Your task to perform on an android device: change your default location settings in chrome Image 0: 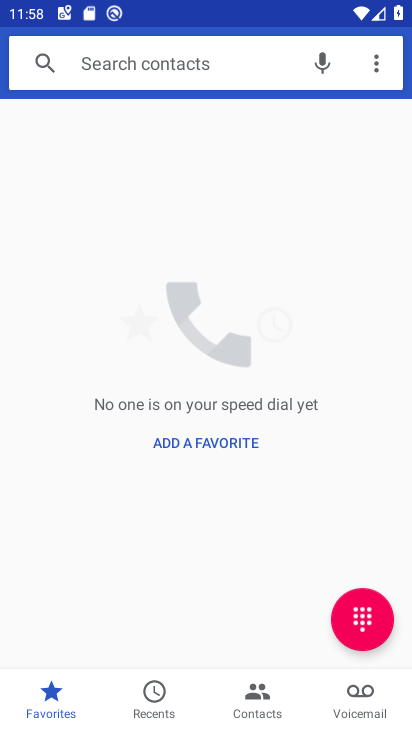
Step 0: press home button
Your task to perform on an android device: change your default location settings in chrome Image 1: 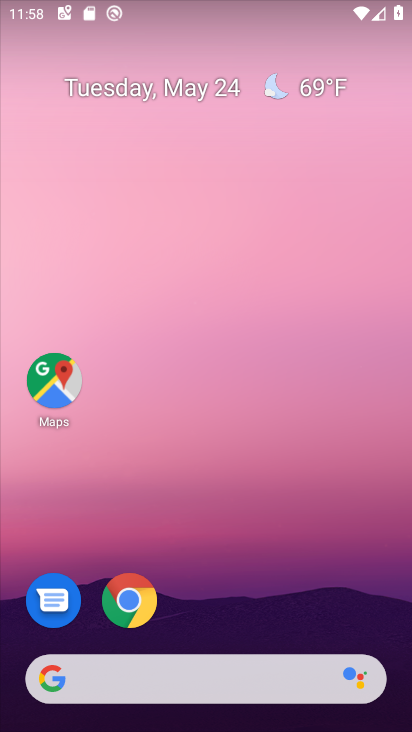
Step 1: drag from (386, 624) to (382, 338)
Your task to perform on an android device: change your default location settings in chrome Image 2: 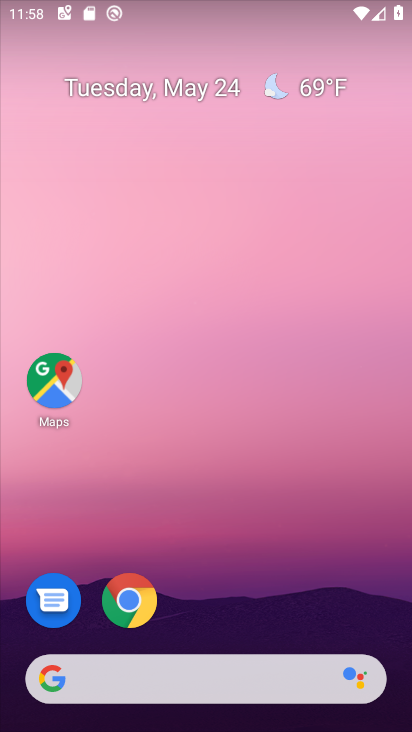
Step 2: drag from (367, 612) to (369, 220)
Your task to perform on an android device: change your default location settings in chrome Image 3: 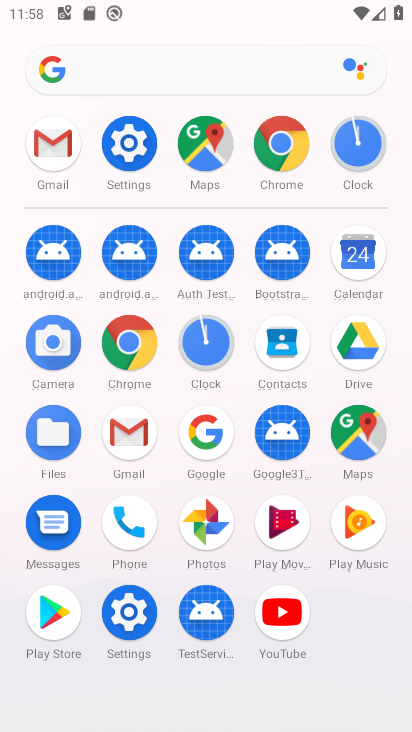
Step 3: click (142, 367)
Your task to perform on an android device: change your default location settings in chrome Image 4: 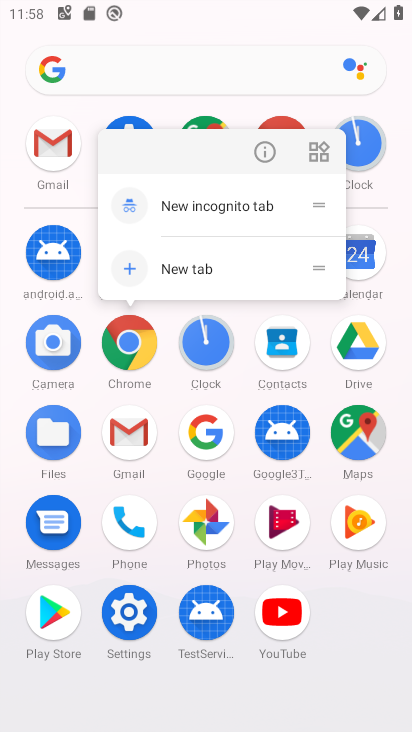
Step 4: click (142, 367)
Your task to perform on an android device: change your default location settings in chrome Image 5: 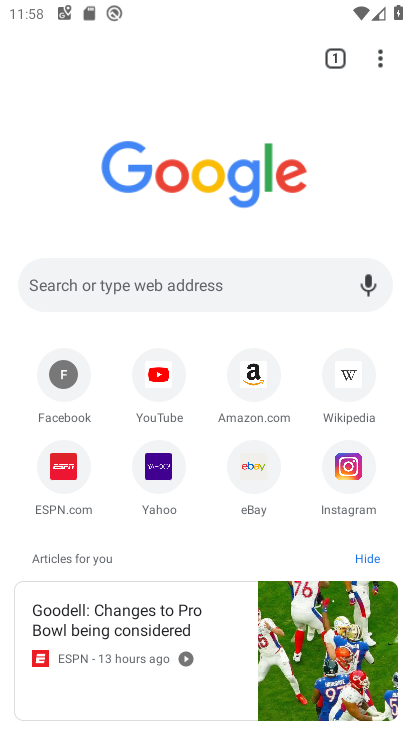
Step 5: click (380, 68)
Your task to perform on an android device: change your default location settings in chrome Image 6: 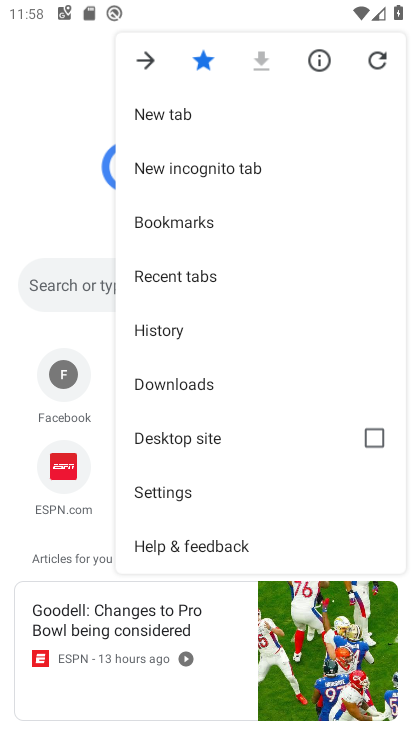
Step 6: click (189, 491)
Your task to perform on an android device: change your default location settings in chrome Image 7: 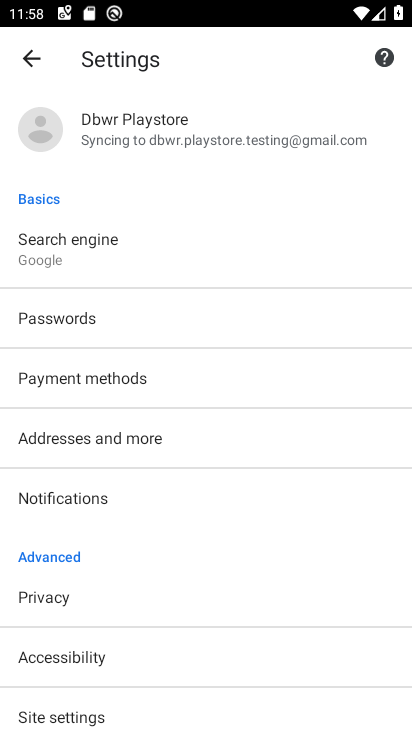
Step 7: drag from (260, 560) to (281, 457)
Your task to perform on an android device: change your default location settings in chrome Image 8: 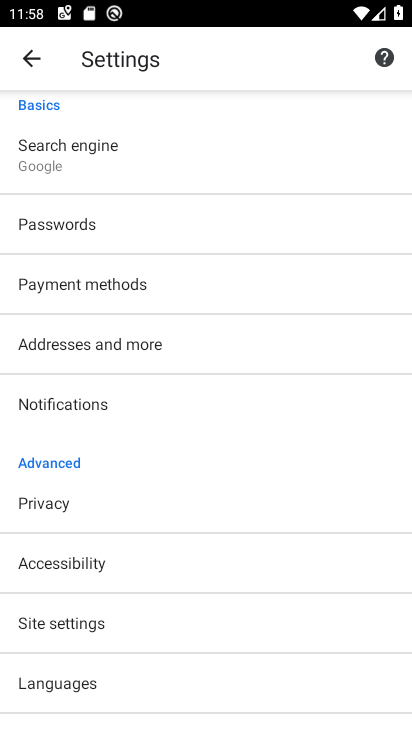
Step 8: drag from (321, 608) to (339, 506)
Your task to perform on an android device: change your default location settings in chrome Image 9: 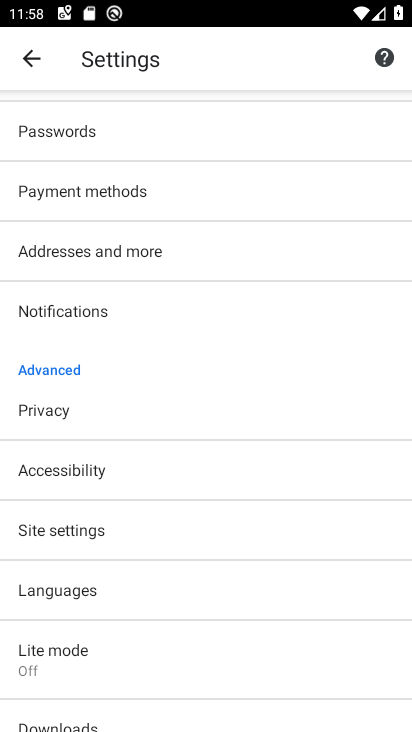
Step 9: drag from (316, 647) to (325, 538)
Your task to perform on an android device: change your default location settings in chrome Image 10: 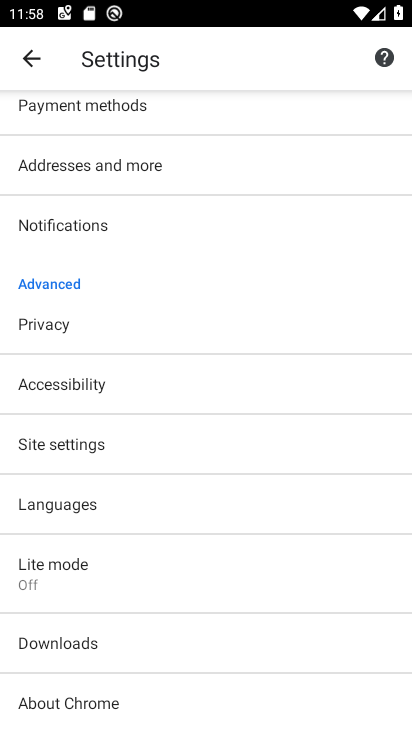
Step 10: drag from (307, 666) to (325, 580)
Your task to perform on an android device: change your default location settings in chrome Image 11: 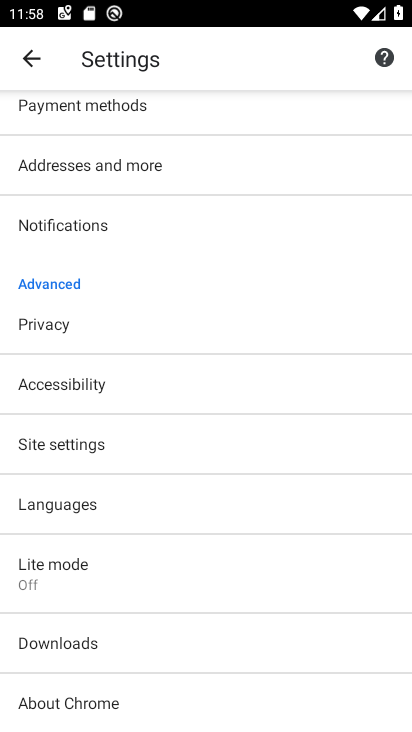
Step 11: drag from (293, 383) to (273, 554)
Your task to perform on an android device: change your default location settings in chrome Image 12: 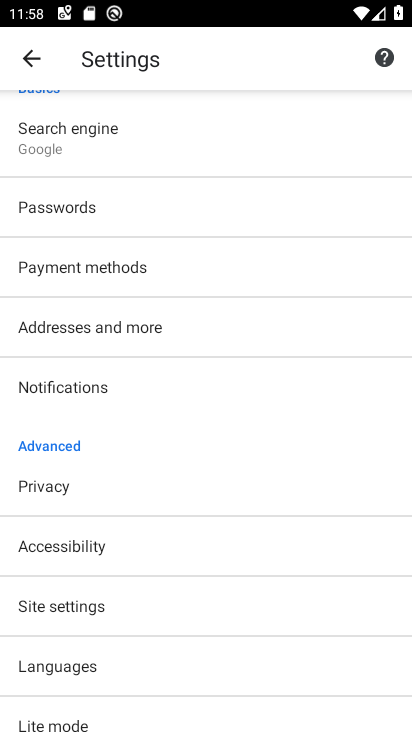
Step 12: click (262, 614)
Your task to perform on an android device: change your default location settings in chrome Image 13: 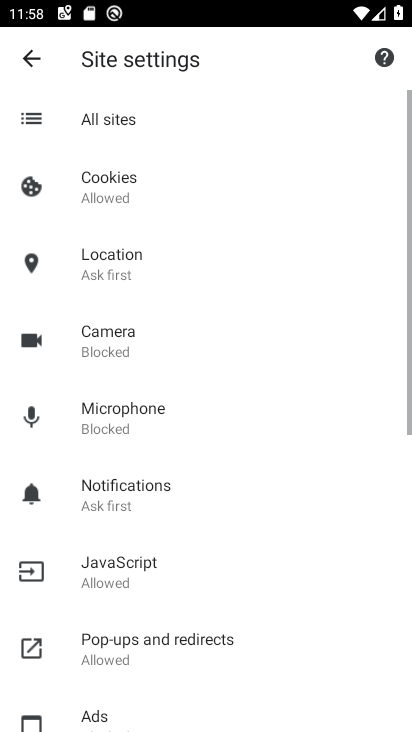
Step 13: drag from (262, 614) to (261, 527)
Your task to perform on an android device: change your default location settings in chrome Image 14: 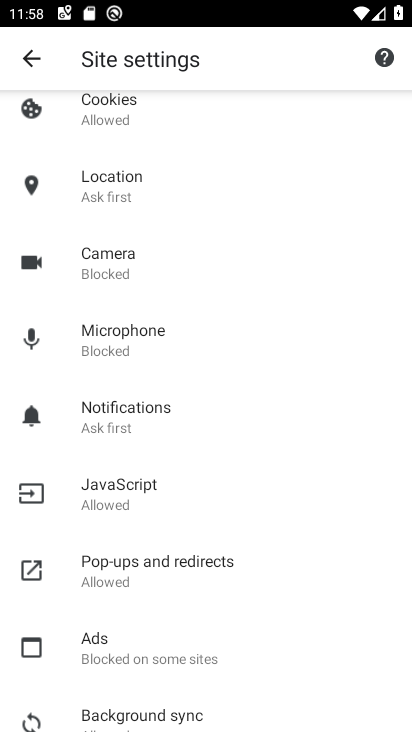
Step 14: drag from (321, 649) to (337, 465)
Your task to perform on an android device: change your default location settings in chrome Image 15: 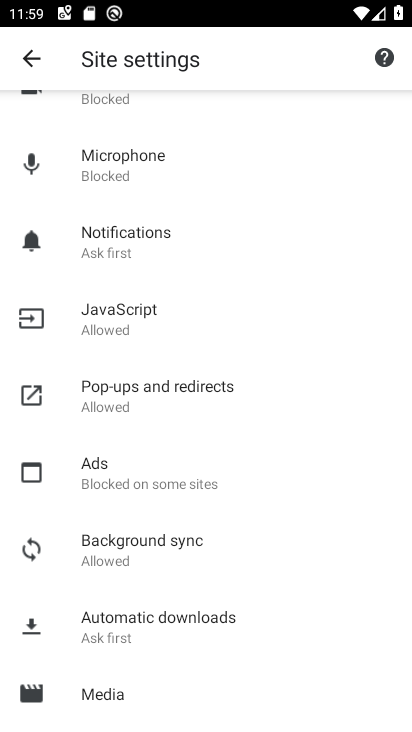
Step 15: drag from (341, 655) to (340, 510)
Your task to perform on an android device: change your default location settings in chrome Image 16: 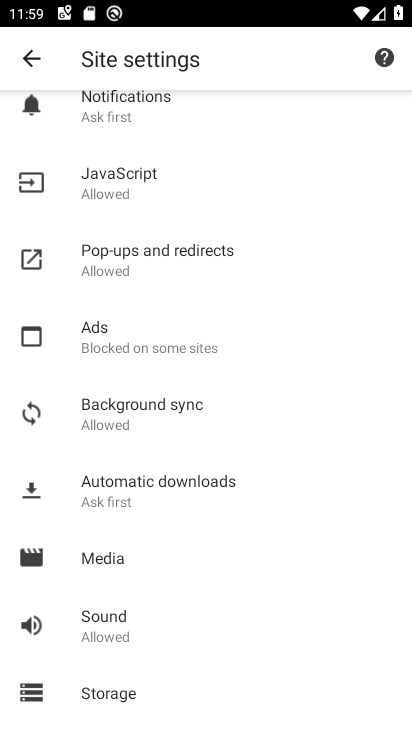
Step 16: drag from (332, 646) to (312, 441)
Your task to perform on an android device: change your default location settings in chrome Image 17: 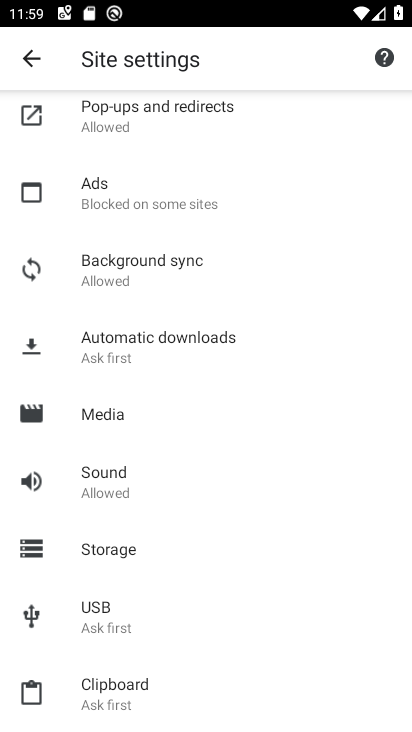
Step 17: drag from (320, 379) to (313, 457)
Your task to perform on an android device: change your default location settings in chrome Image 18: 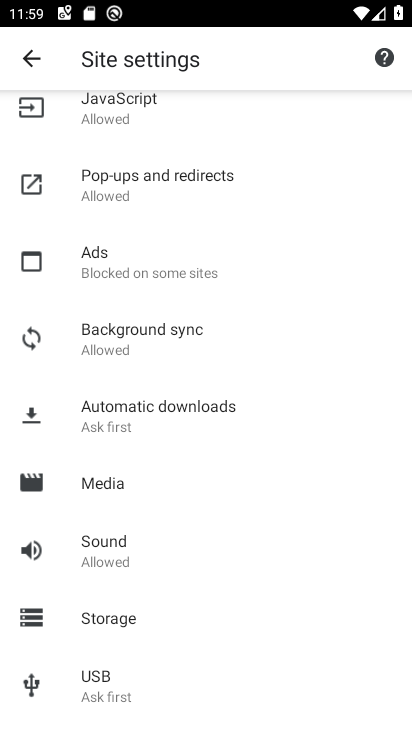
Step 18: drag from (327, 376) to (340, 465)
Your task to perform on an android device: change your default location settings in chrome Image 19: 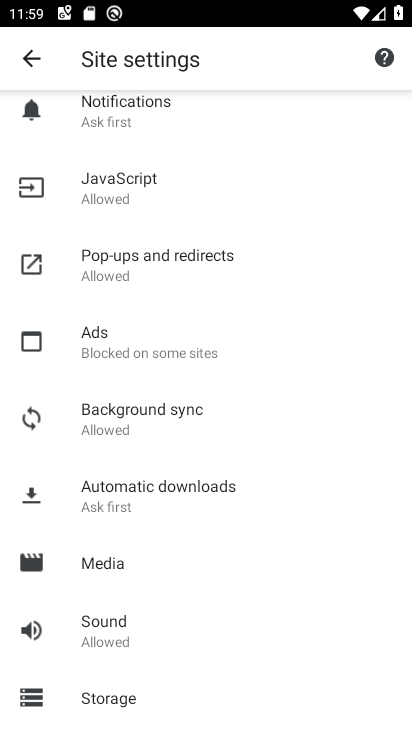
Step 19: drag from (326, 369) to (330, 440)
Your task to perform on an android device: change your default location settings in chrome Image 20: 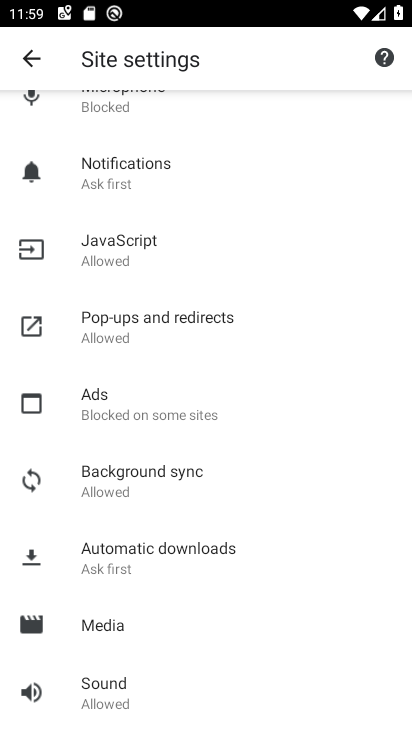
Step 20: drag from (331, 373) to (327, 469)
Your task to perform on an android device: change your default location settings in chrome Image 21: 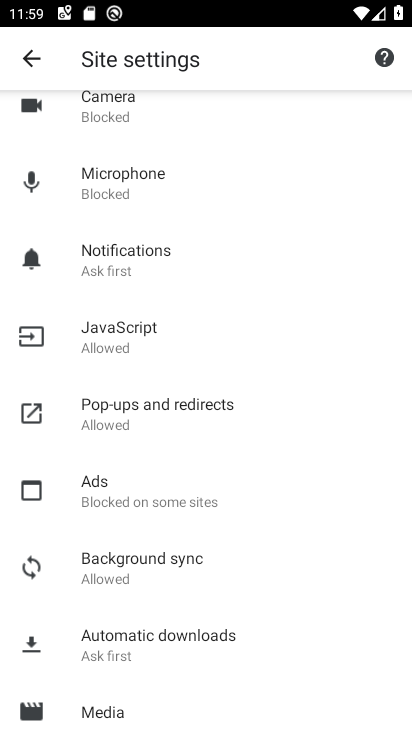
Step 21: drag from (316, 367) to (298, 479)
Your task to perform on an android device: change your default location settings in chrome Image 22: 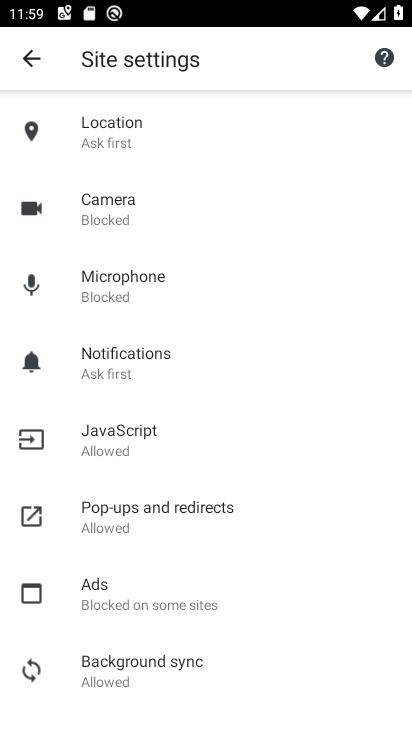
Step 22: drag from (297, 383) to (297, 564)
Your task to perform on an android device: change your default location settings in chrome Image 23: 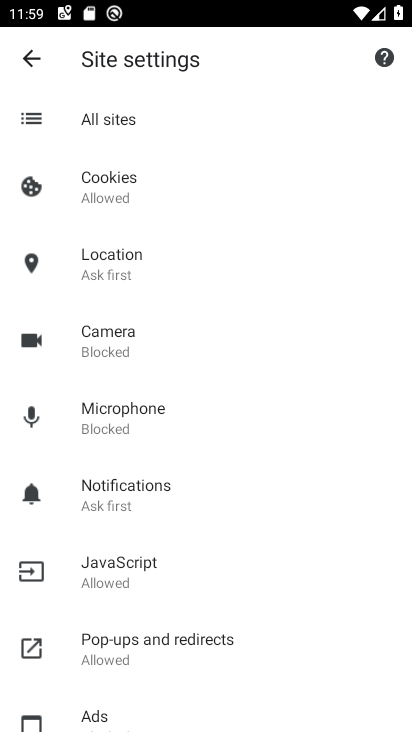
Step 23: click (241, 256)
Your task to perform on an android device: change your default location settings in chrome Image 24: 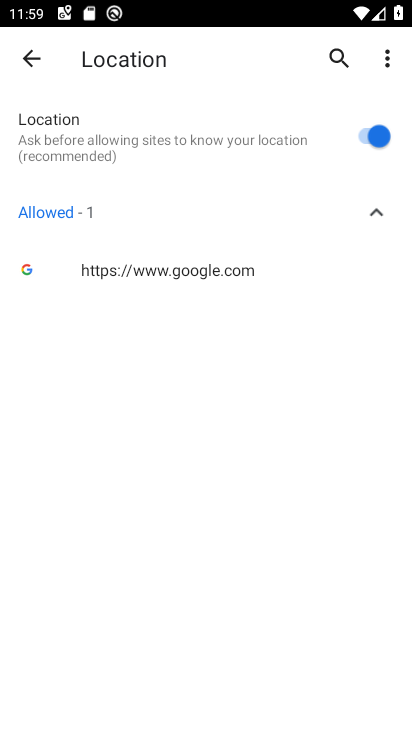
Step 24: click (374, 130)
Your task to perform on an android device: change your default location settings in chrome Image 25: 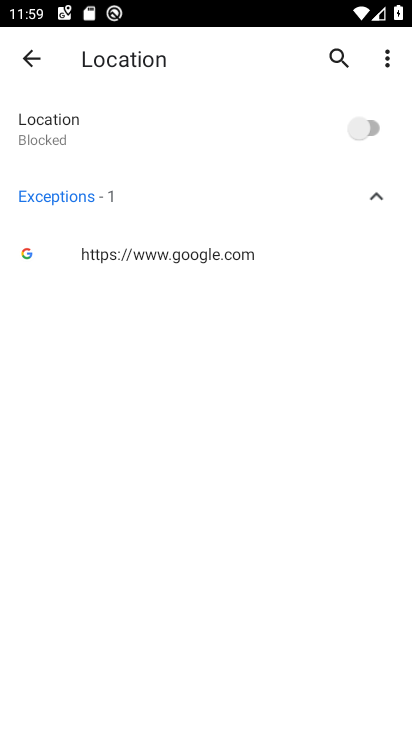
Step 25: task complete